Your task to perform on an android device: Check the settings for the Instagram app Image 0: 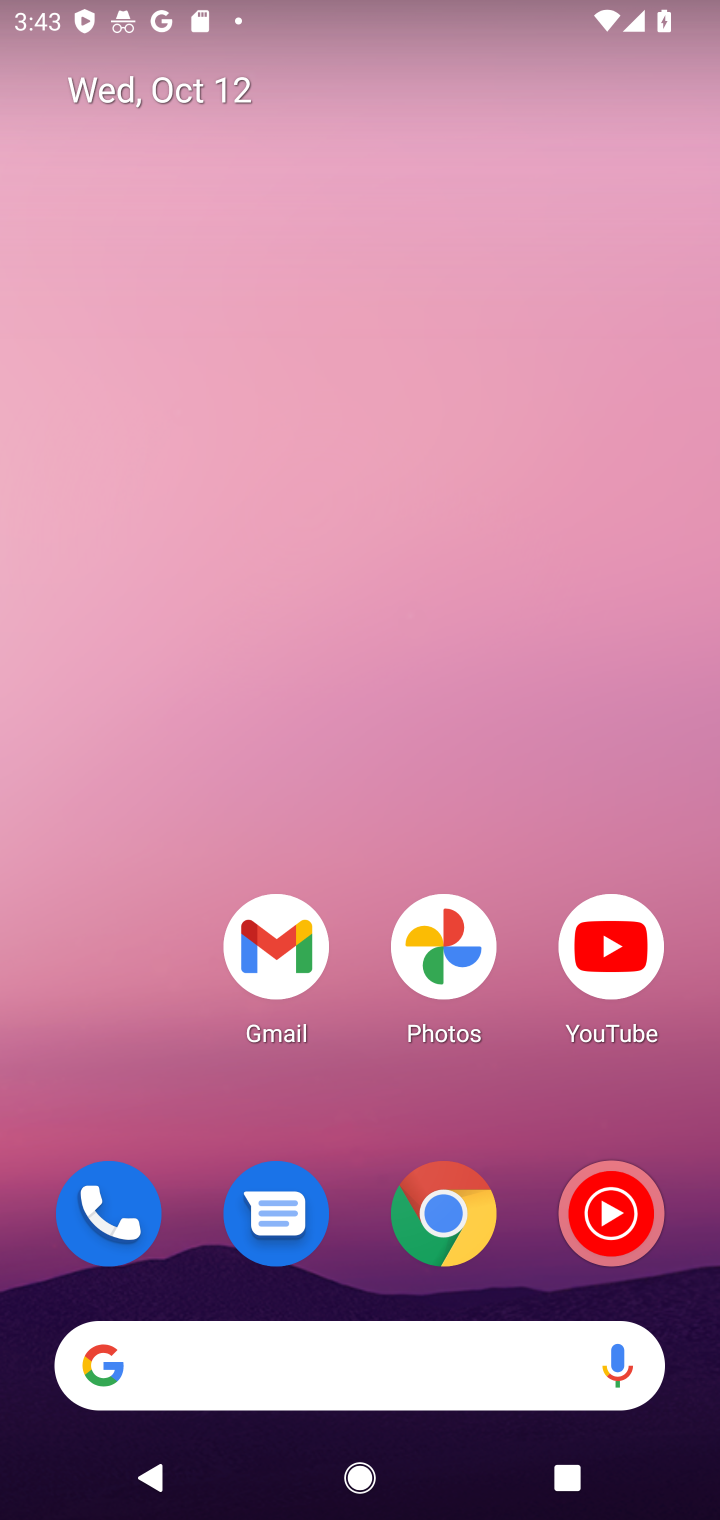
Step 0: drag from (123, 1011) to (347, 44)
Your task to perform on an android device: Check the settings for the Instagram app Image 1: 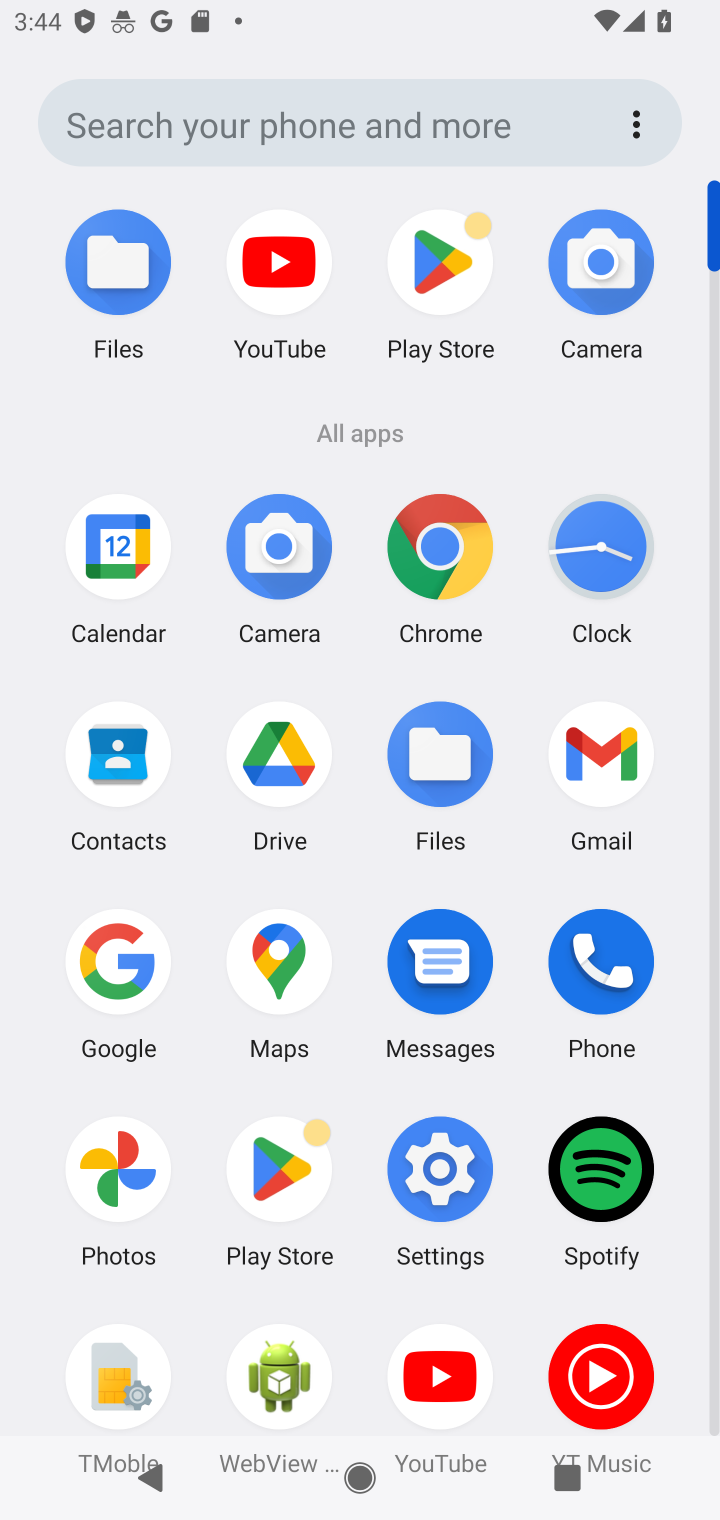
Step 1: click (453, 1155)
Your task to perform on an android device: Check the settings for the Instagram app Image 2: 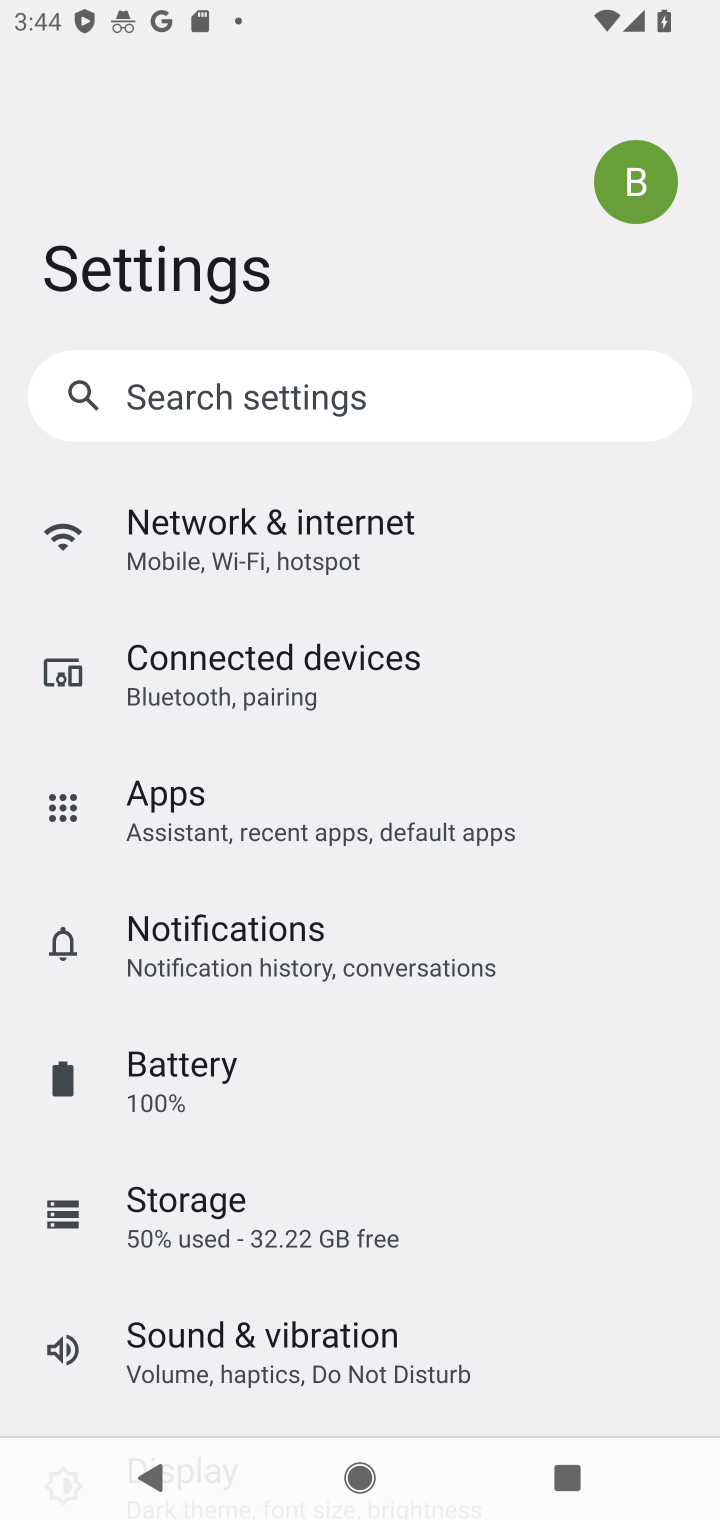
Step 2: task complete